Your task to perform on an android device: Go to sound settings Image 0: 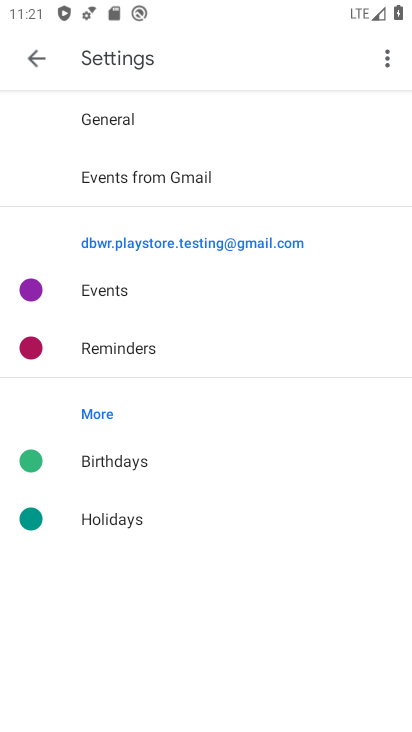
Step 0: press home button
Your task to perform on an android device: Go to sound settings Image 1: 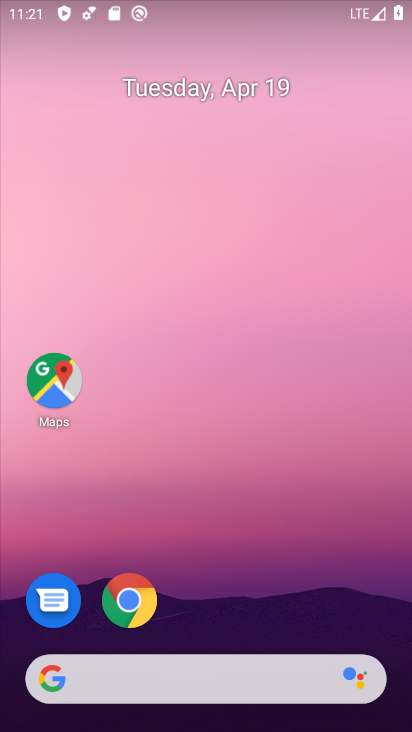
Step 1: drag from (341, 613) to (326, 0)
Your task to perform on an android device: Go to sound settings Image 2: 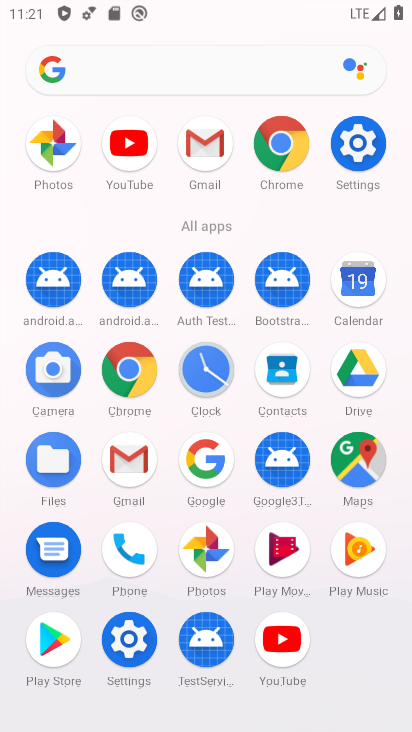
Step 2: click (355, 149)
Your task to perform on an android device: Go to sound settings Image 3: 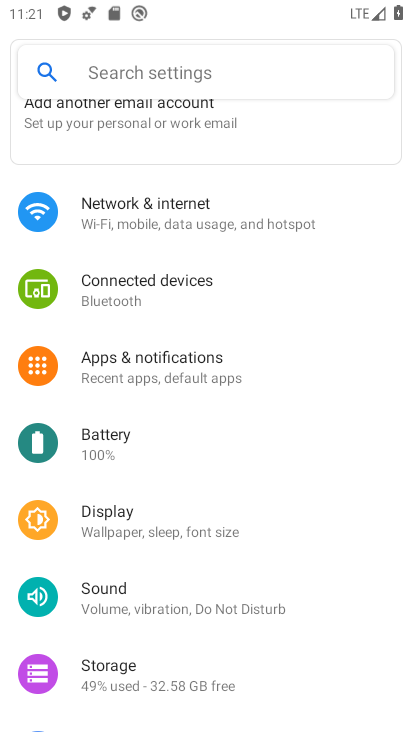
Step 3: click (106, 593)
Your task to perform on an android device: Go to sound settings Image 4: 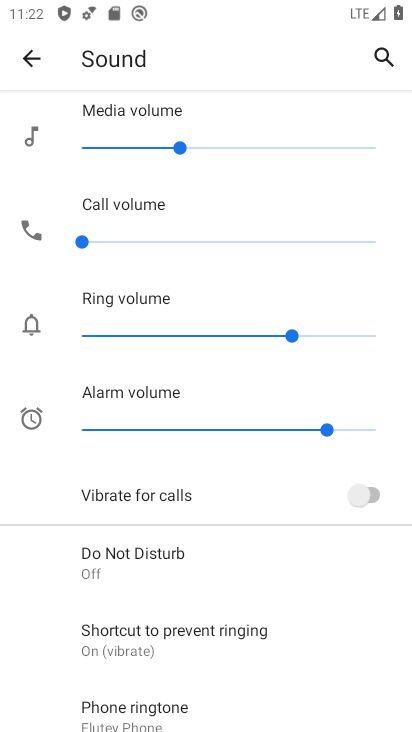
Step 4: task complete